Your task to perform on an android device: Open wifi settings Image 0: 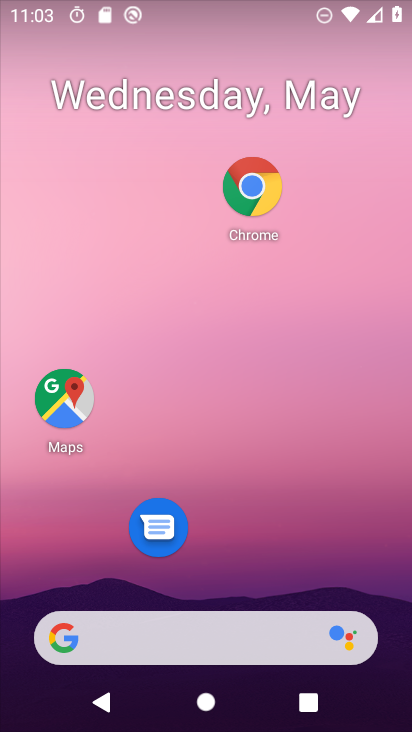
Step 0: drag from (219, 642) to (372, 212)
Your task to perform on an android device: Open wifi settings Image 1: 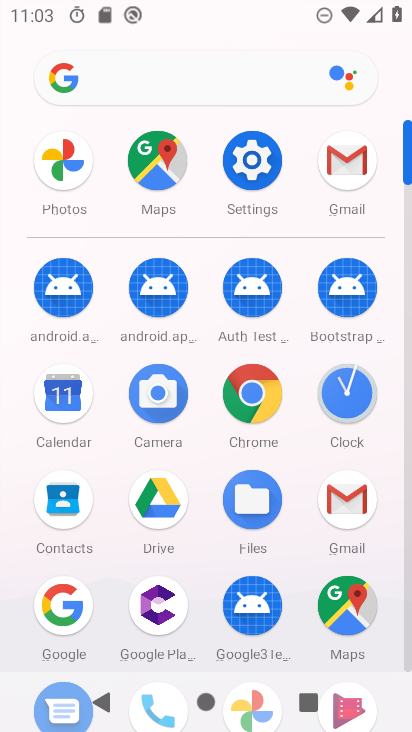
Step 1: click (264, 159)
Your task to perform on an android device: Open wifi settings Image 2: 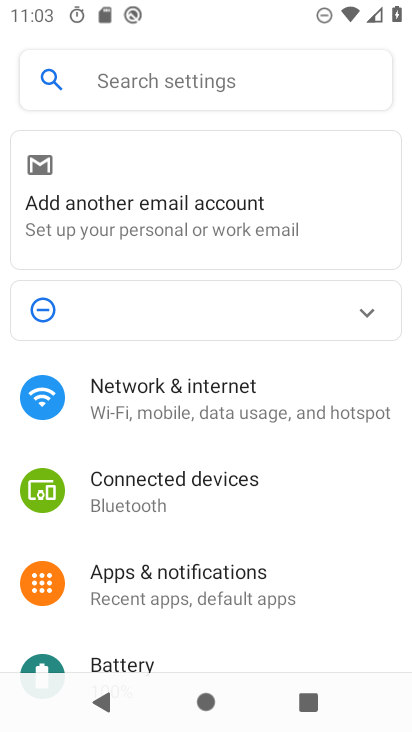
Step 2: click (257, 408)
Your task to perform on an android device: Open wifi settings Image 3: 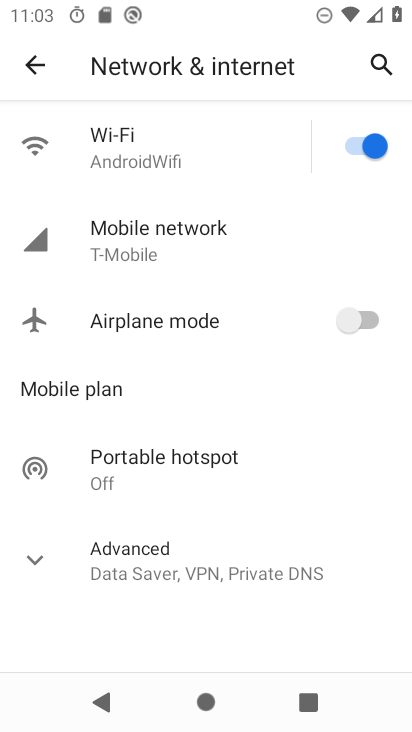
Step 3: click (180, 150)
Your task to perform on an android device: Open wifi settings Image 4: 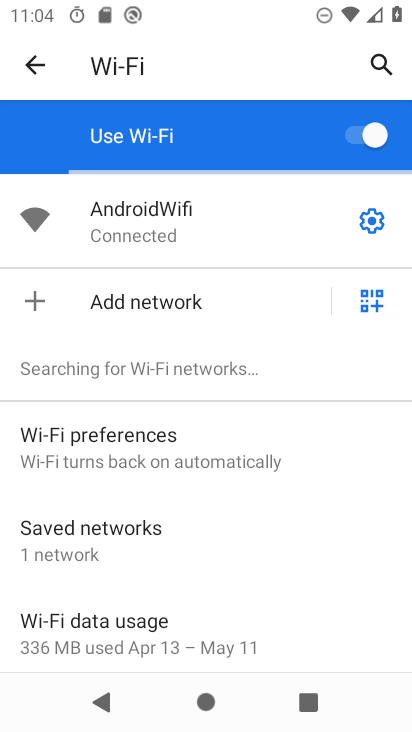
Step 4: task complete